Your task to perform on an android device: Go to CNN.com Image 0: 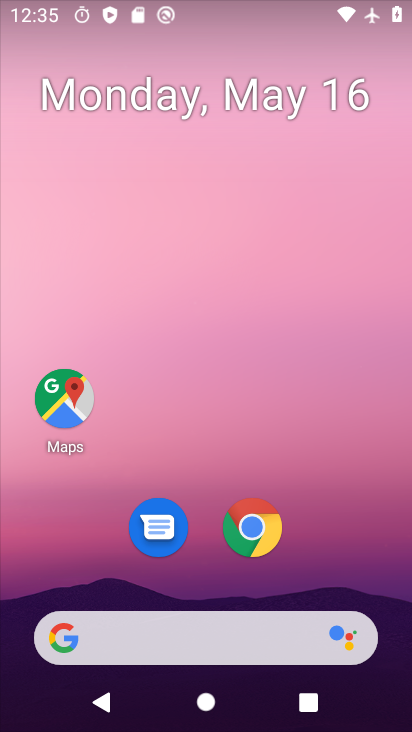
Step 0: press home button
Your task to perform on an android device: Go to CNN.com Image 1: 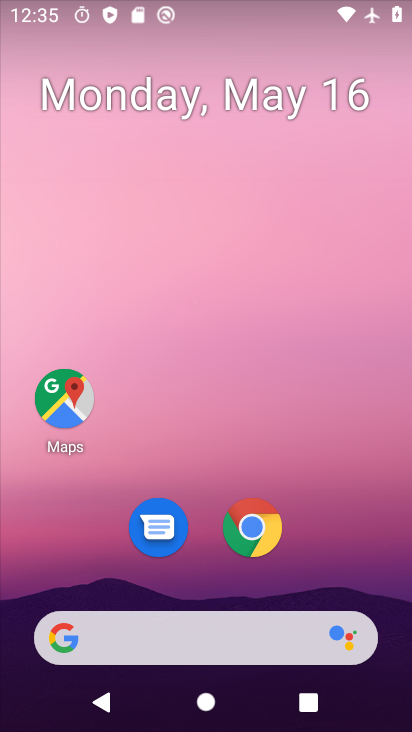
Step 1: click (253, 535)
Your task to perform on an android device: Go to CNN.com Image 2: 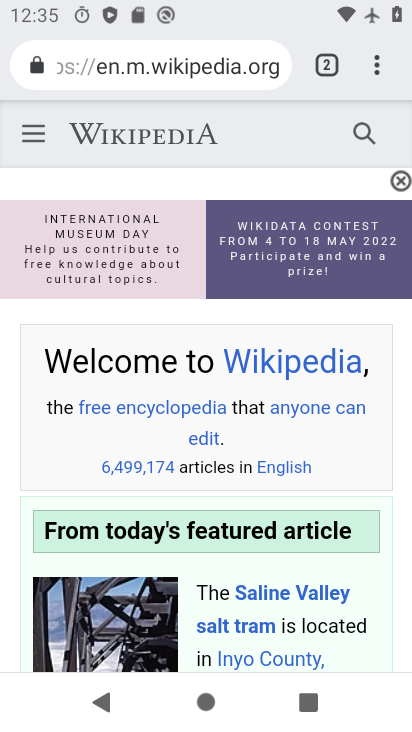
Step 2: drag from (377, 77) to (313, 132)
Your task to perform on an android device: Go to CNN.com Image 3: 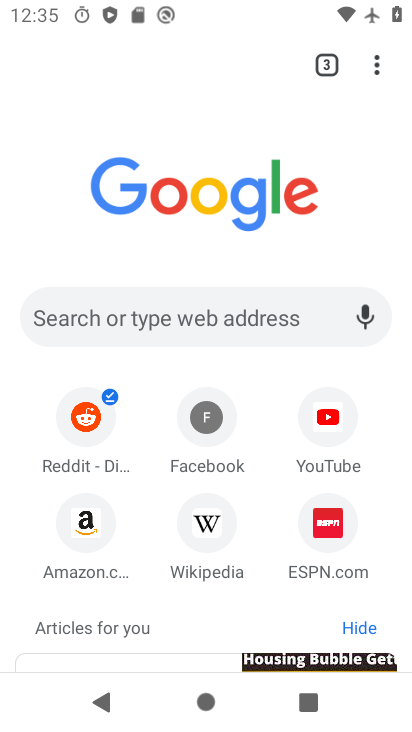
Step 3: click (92, 317)
Your task to perform on an android device: Go to CNN.com Image 4: 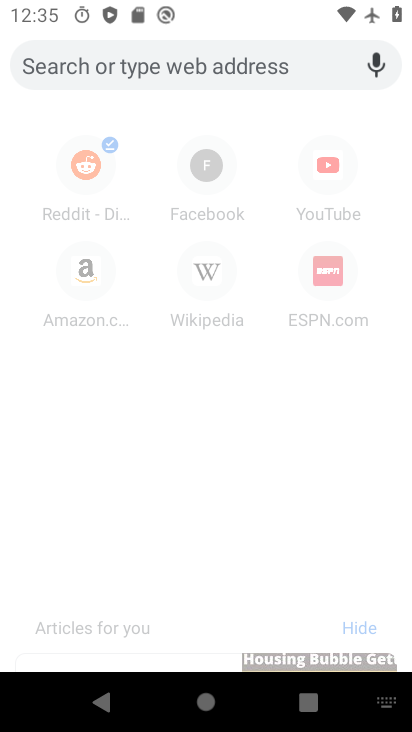
Step 4: type "cnn.com"
Your task to perform on an android device: Go to CNN.com Image 5: 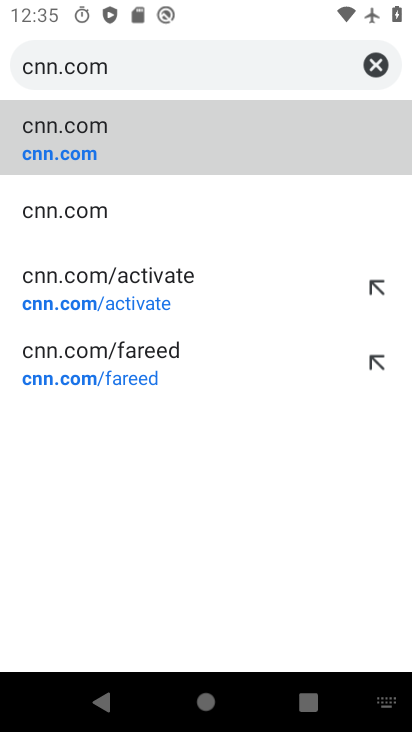
Step 5: click (74, 144)
Your task to perform on an android device: Go to CNN.com Image 6: 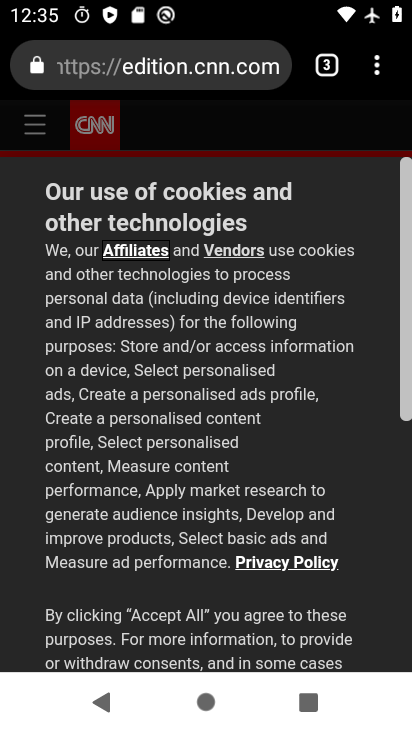
Step 6: task complete